Your task to perform on an android device: open the mobile data screen to see how much data has been used Image 0: 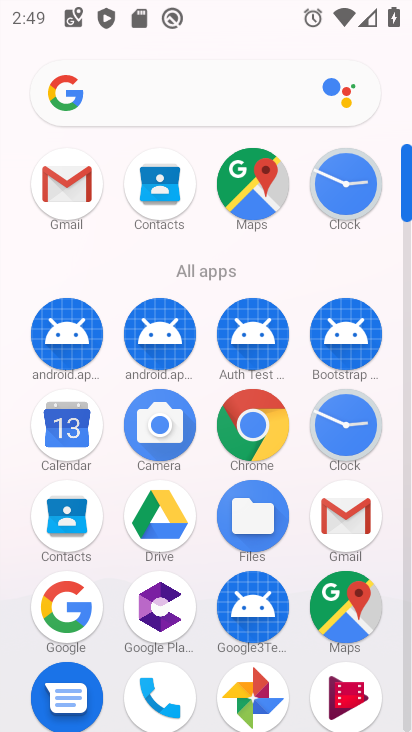
Step 0: press home button
Your task to perform on an android device: open the mobile data screen to see how much data has been used Image 1: 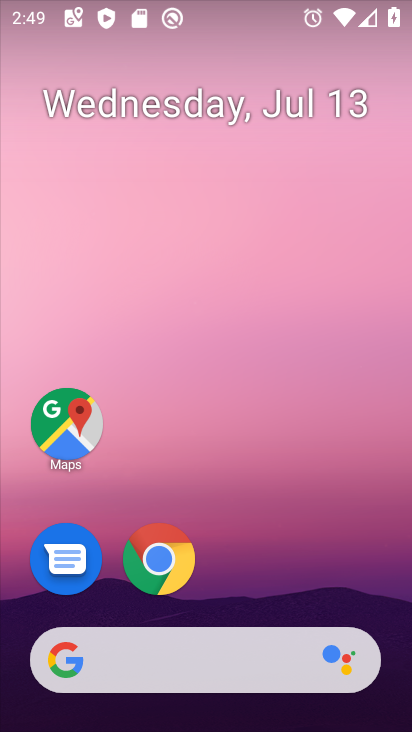
Step 1: drag from (300, 572) to (315, 196)
Your task to perform on an android device: open the mobile data screen to see how much data has been used Image 2: 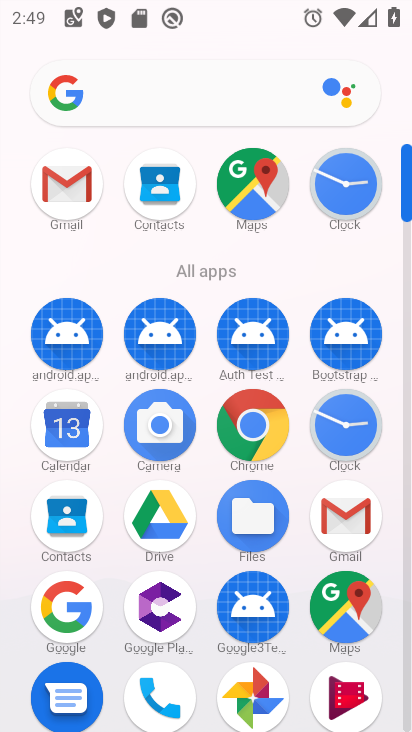
Step 2: drag from (386, 473) to (385, 275)
Your task to perform on an android device: open the mobile data screen to see how much data has been used Image 3: 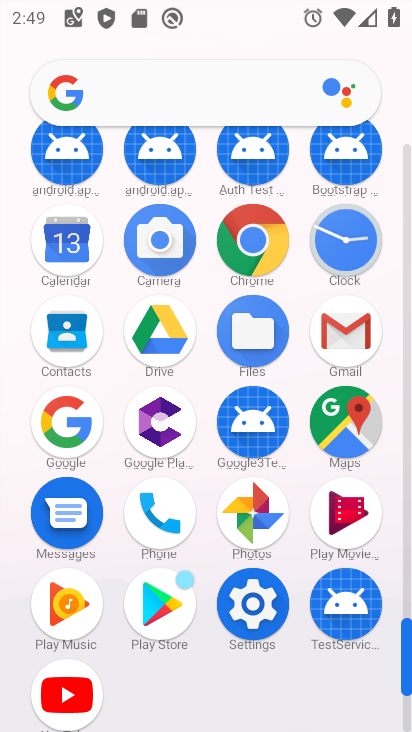
Step 3: click (248, 623)
Your task to perform on an android device: open the mobile data screen to see how much data has been used Image 4: 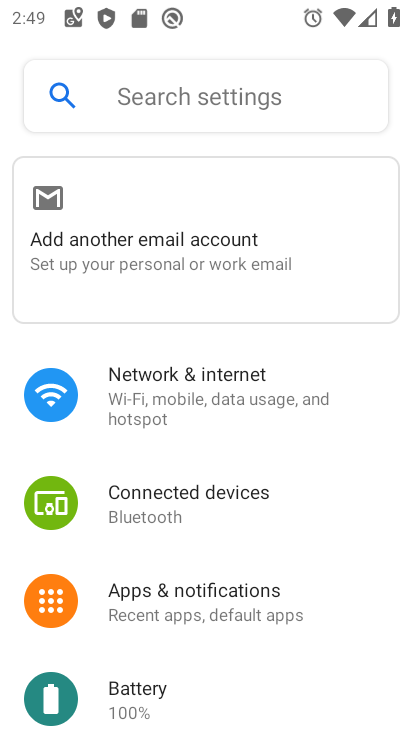
Step 4: drag from (354, 614) to (378, 308)
Your task to perform on an android device: open the mobile data screen to see how much data has been used Image 5: 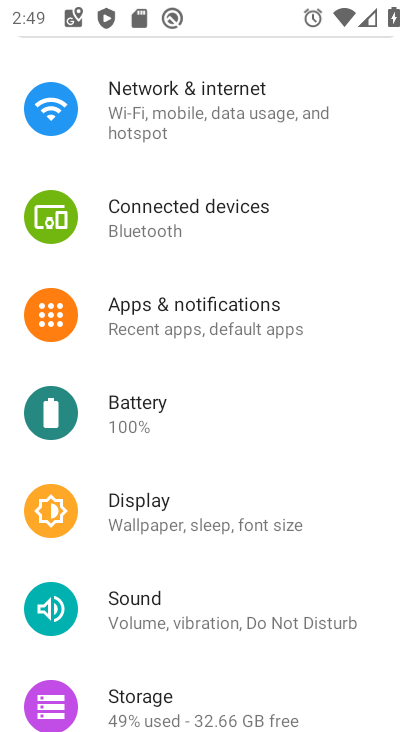
Step 5: drag from (350, 548) to (343, 407)
Your task to perform on an android device: open the mobile data screen to see how much data has been used Image 6: 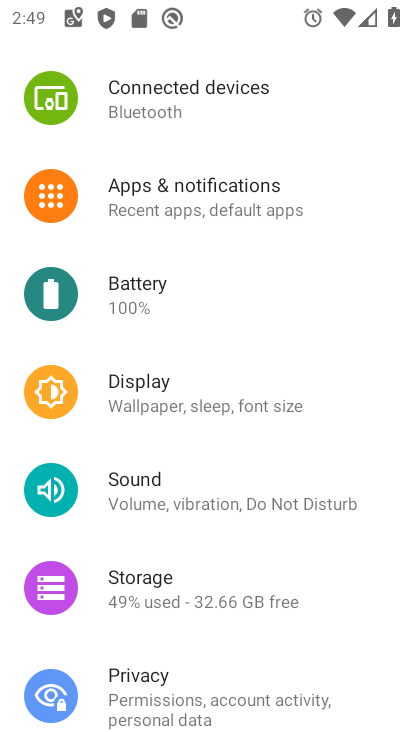
Step 6: drag from (362, 536) to (363, 284)
Your task to perform on an android device: open the mobile data screen to see how much data has been used Image 7: 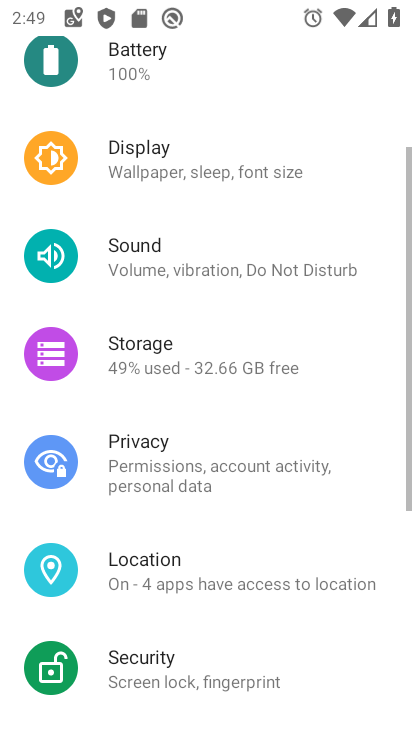
Step 7: drag from (359, 300) to (347, 406)
Your task to perform on an android device: open the mobile data screen to see how much data has been used Image 8: 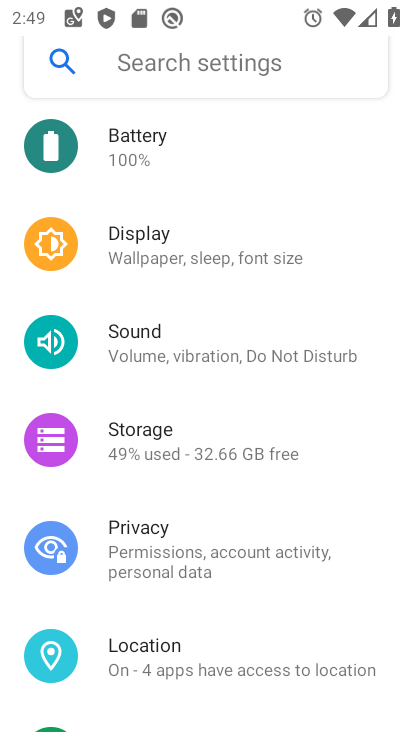
Step 8: drag from (346, 255) to (346, 493)
Your task to perform on an android device: open the mobile data screen to see how much data has been used Image 9: 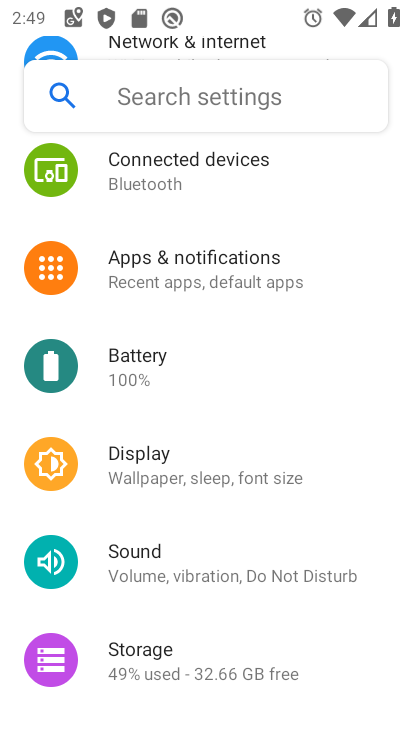
Step 9: drag from (353, 239) to (358, 400)
Your task to perform on an android device: open the mobile data screen to see how much data has been used Image 10: 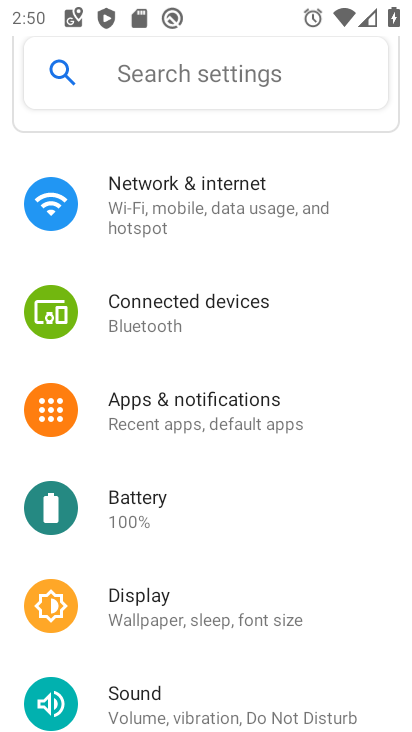
Step 10: click (281, 202)
Your task to perform on an android device: open the mobile data screen to see how much data has been used Image 11: 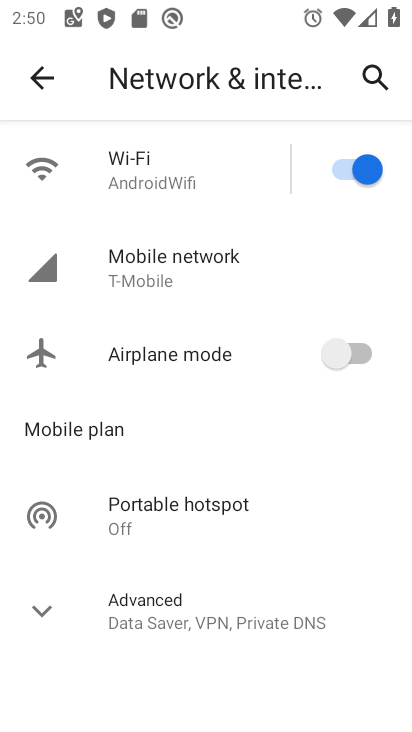
Step 11: click (176, 276)
Your task to perform on an android device: open the mobile data screen to see how much data has been used Image 12: 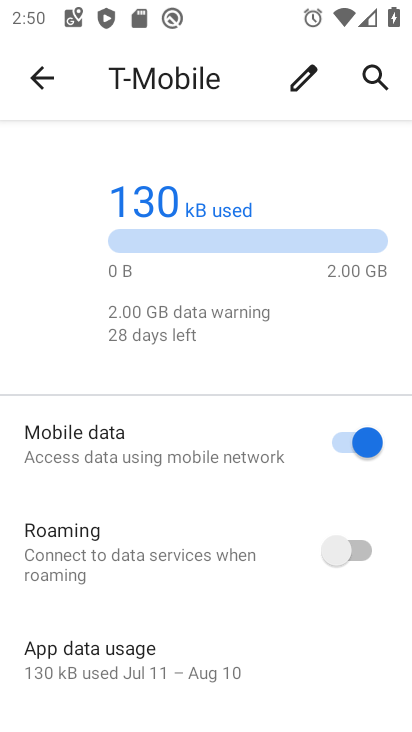
Step 12: click (161, 650)
Your task to perform on an android device: open the mobile data screen to see how much data has been used Image 13: 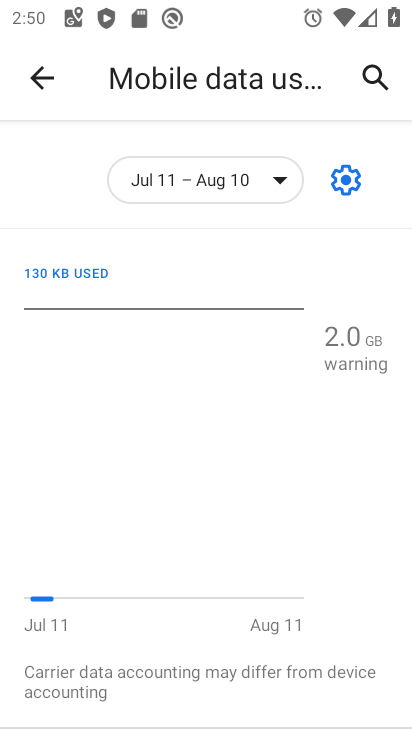
Step 13: task complete